Your task to perform on an android device: turn off priority inbox in the gmail app Image 0: 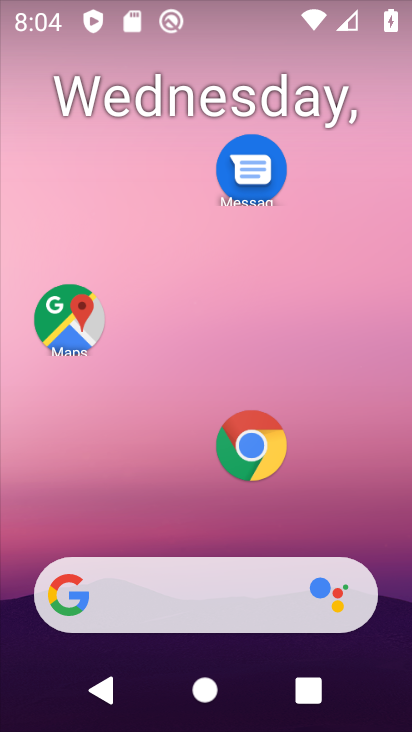
Step 0: drag from (275, 688) to (161, 157)
Your task to perform on an android device: turn off priority inbox in the gmail app Image 1: 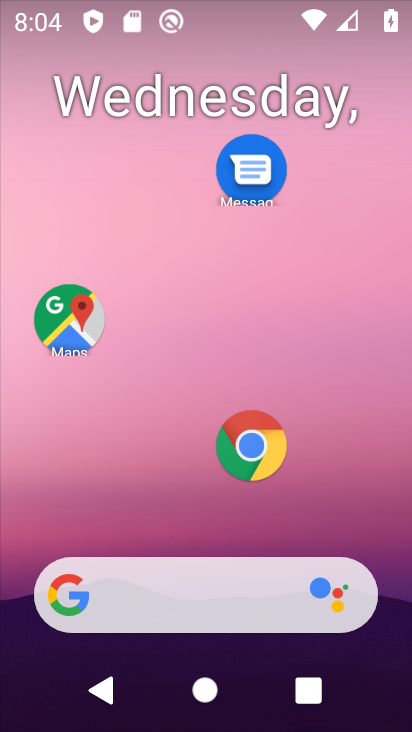
Step 1: drag from (254, 659) to (121, 210)
Your task to perform on an android device: turn off priority inbox in the gmail app Image 2: 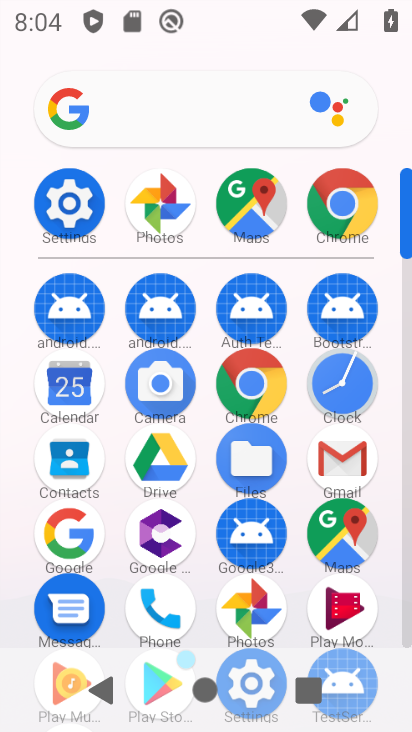
Step 2: click (346, 454)
Your task to perform on an android device: turn off priority inbox in the gmail app Image 3: 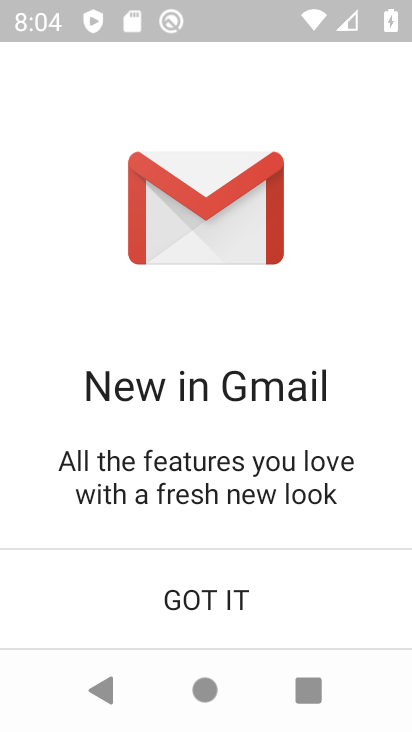
Step 3: click (181, 596)
Your task to perform on an android device: turn off priority inbox in the gmail app Image 4: 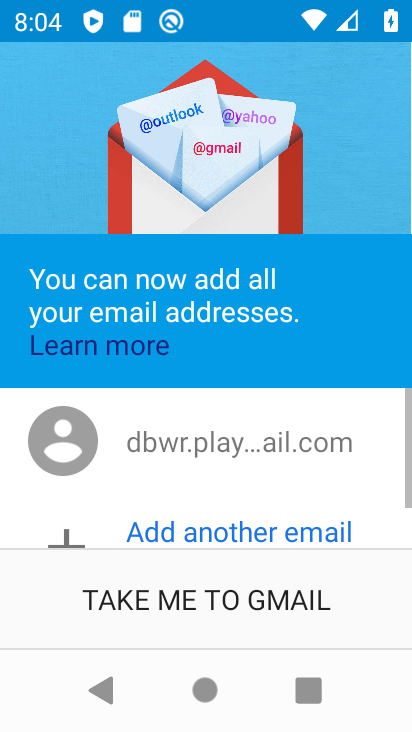
Step 4: click (189, 599)
Your task to perform on an android device: turn off priority inbox in the gmail app Image 5: 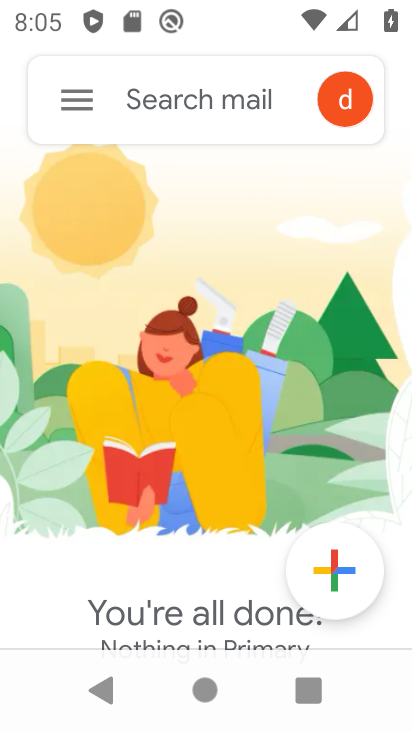
Step 5: click (70, 98)
Your task to perform on an android device: turn off priority inbox in the gmail app Image 6: 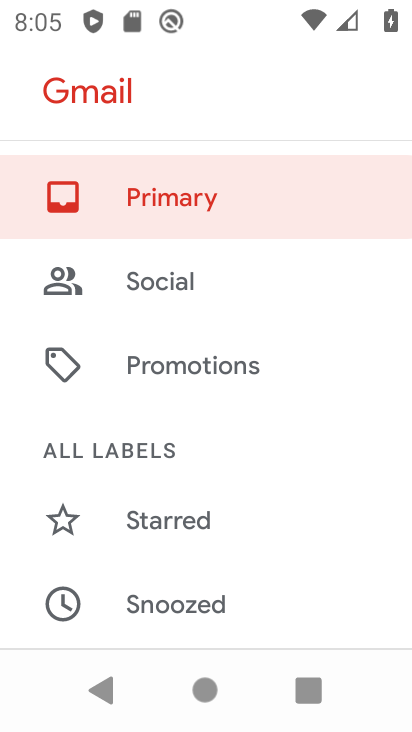
Step 6: drag from (236, 569) to (194, 218)
Your task to perform on an android device: turn off priority inbox in the gmail app Image 7: 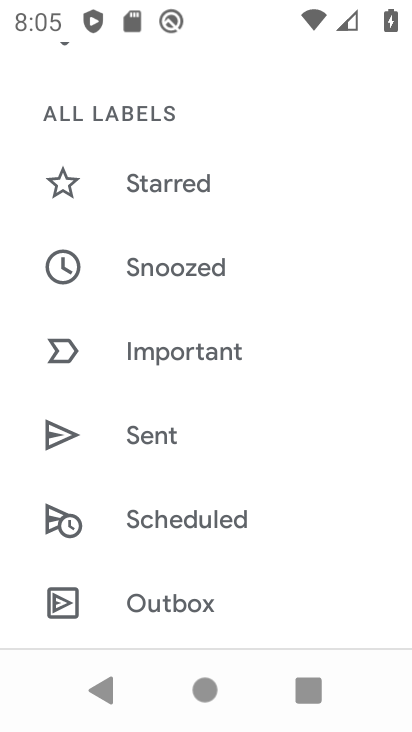
Step 7: drag from (232, 269) to (225, 202)
Your task to perform on an android device: turn off priority inbox in the gmail app Image 8: 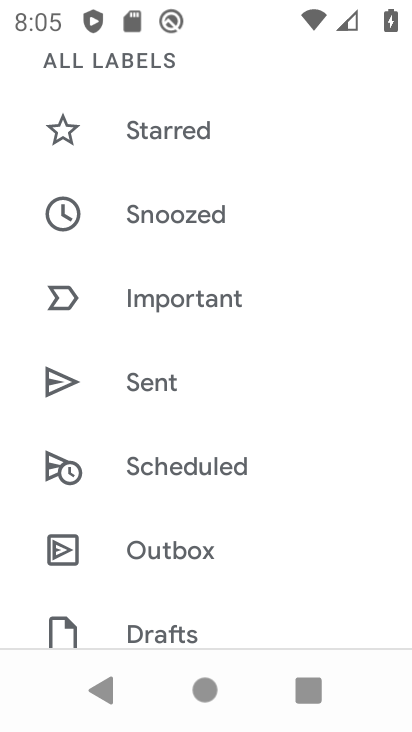
Step 8: drag from (247, 512) to (247, 216)
Your task to perform on an android device: turn off priority inbox in the gmail app Image 9: 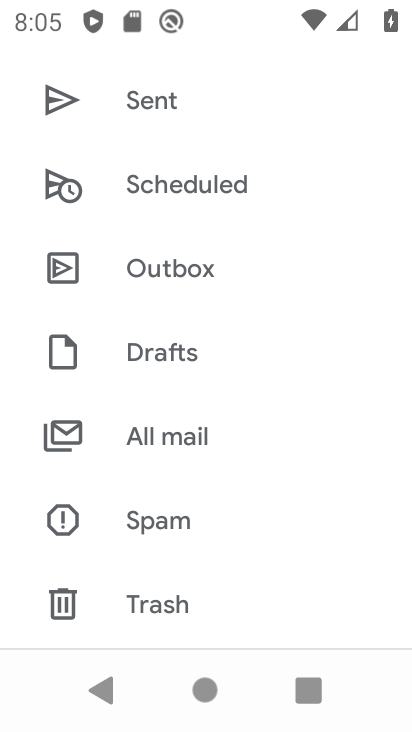
Step 9: drag from (251, 435) to (251, 125)
Your task to perform on an android device: turn off priority inbox in the gmail app Image 10: 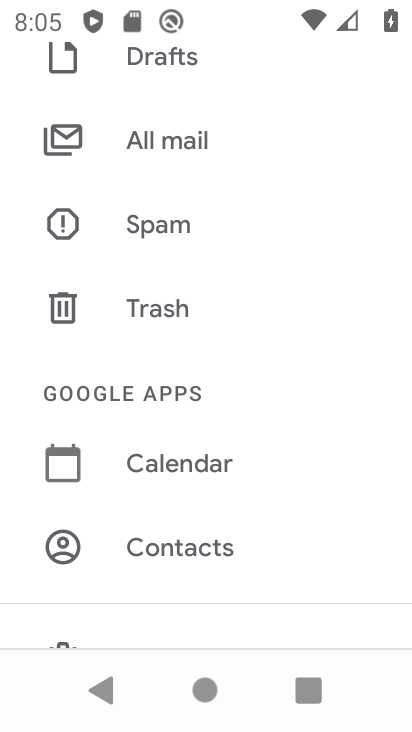
Step 10: drag from (174, 388) to (164, 130)
Your task to perform on an android device: turn off priority inbox in the gmail app Image 11: 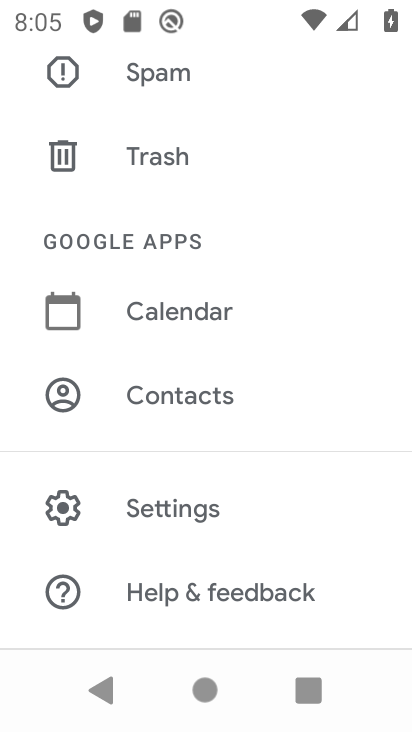
Step 11: drag from (206, 326) to (213, 128)
Your task to perform on an android device: turn off priority inbox in the gmail app Image 12: 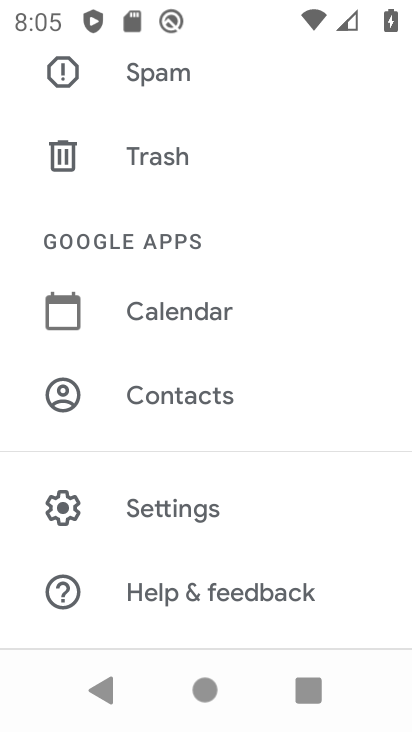
Step 12: click (157, 497)
Your task to perform on an android device: turn off priority inbox in the gmail app Image 13: 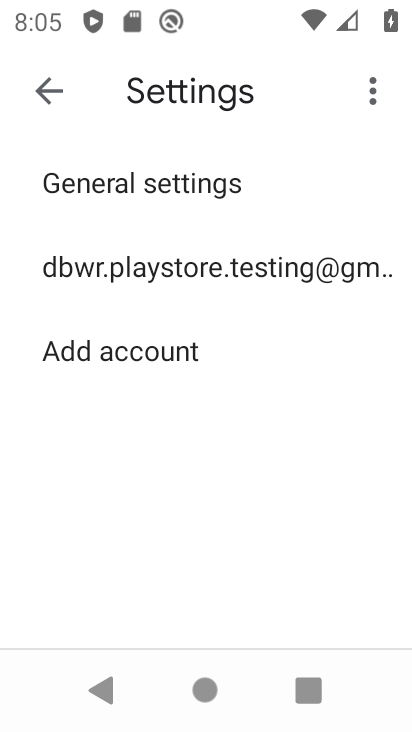
Step 13: click (179, 262)
Your task to perform on an android device: turn off priority inbox in the gmail app Image 14: 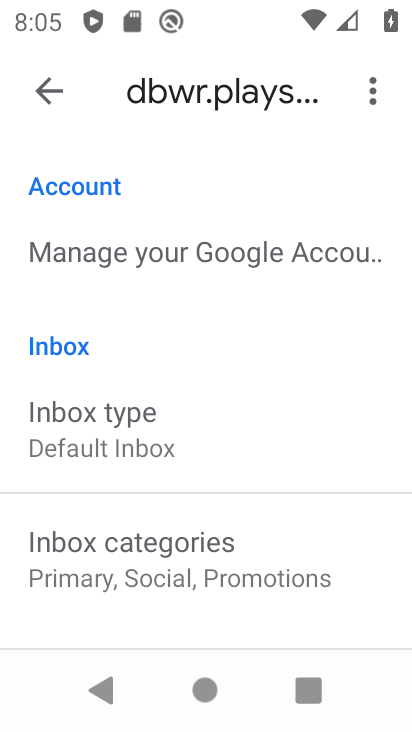
Step 14: click (98, 444)
Your task to perform on an android device: turn off priority inbox in the gmail app Image 15: 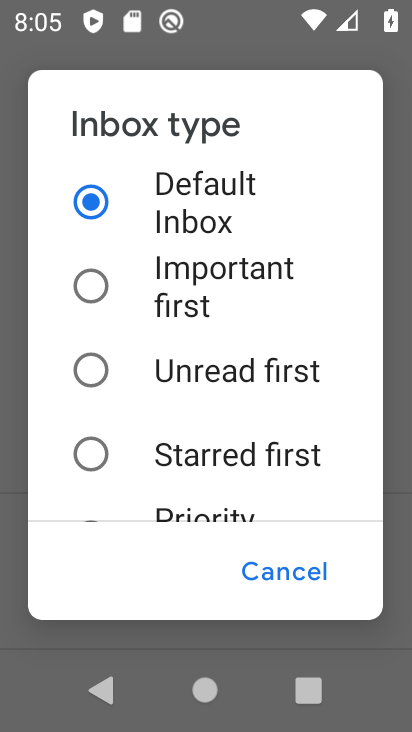
Step 15: task complete